Your task to perform on an android device: toggle notification dots Image 0: 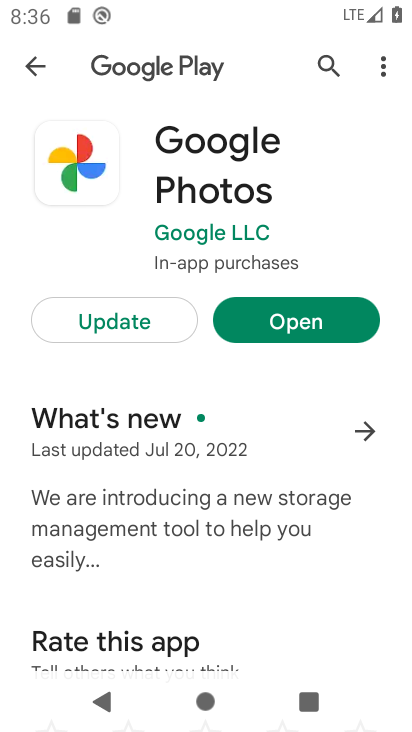
Step 0: press home button
Your task to perform on an android device: toggle notification dots Image 1: 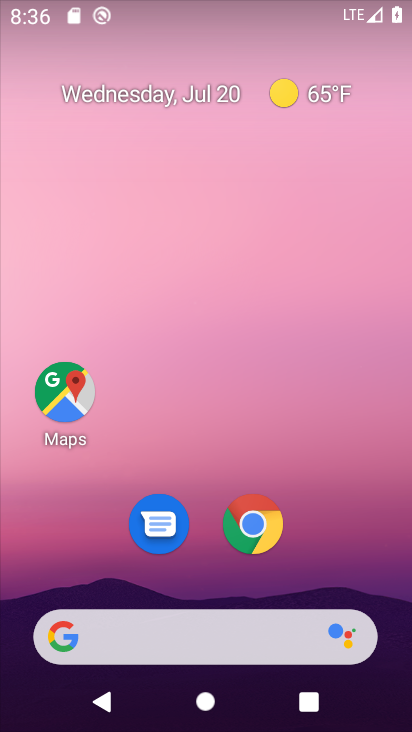
Step 1: drag from (343, 539) to (335, 62)
Your task to perform on an android device: toggle notification dots Image 2: 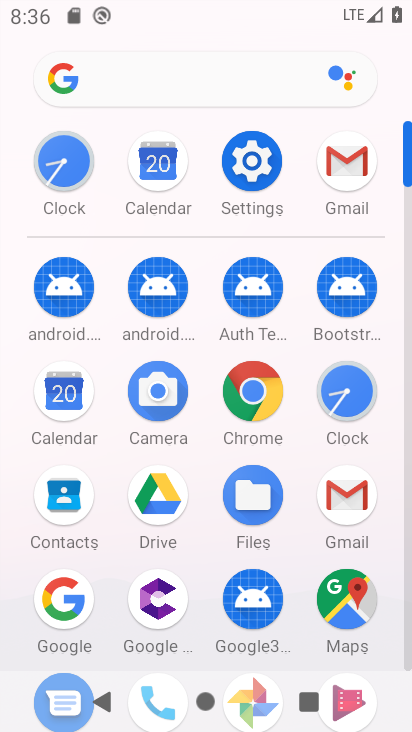
Step 2: click (262, 167)
Your task to perform on an android device: toggle notification dots Image 3: 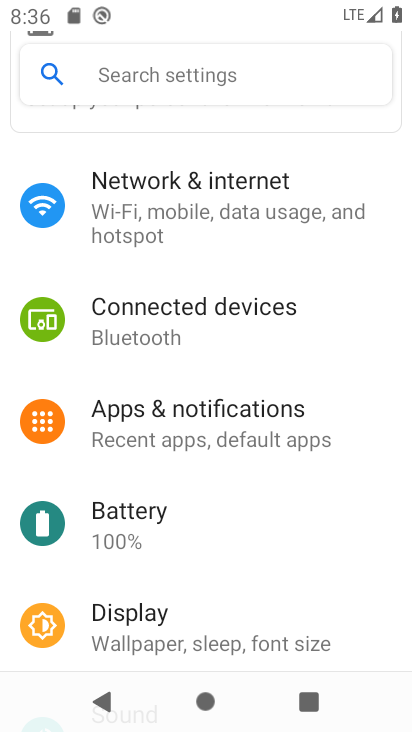
Step 3: click (253, 209)
Your task to perform on an android device: toggle notification dots Image 4: 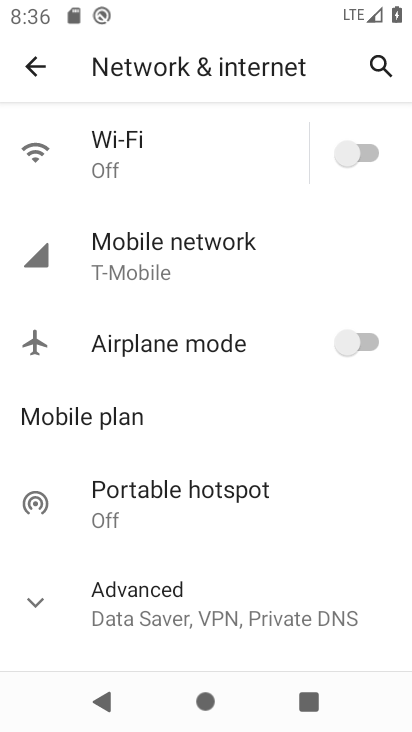
Step 4: click (46, 63)
Your task to perform on an android device: toggle notification dots Image 5: 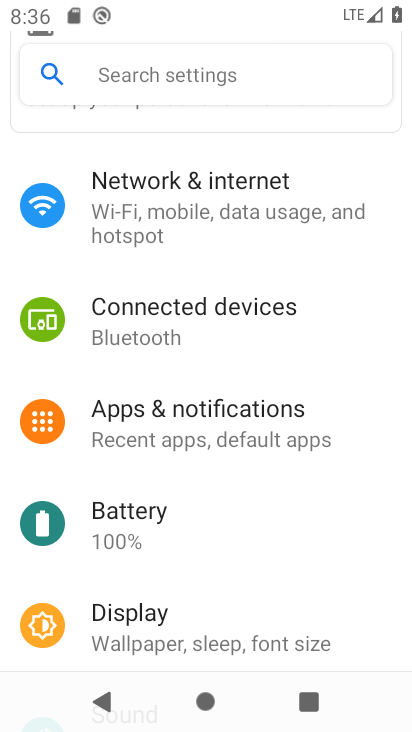
Step 5: click (191, 418)
Your task to perform on an android device: toggle notification dots Image 6: 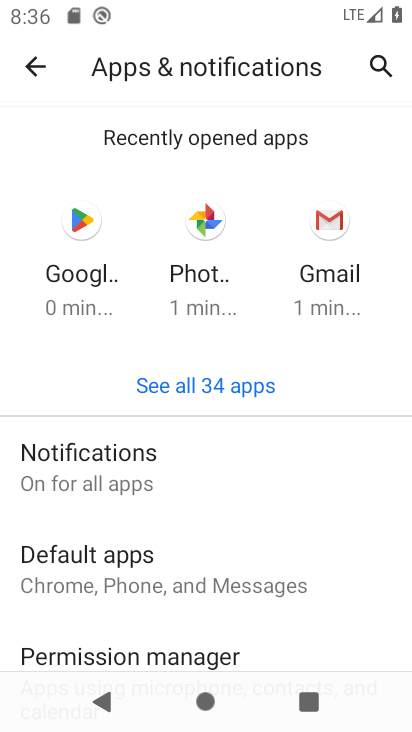
Step 6: click (143, 471)
Your task to perform on an android device: toggle notification dots Image 7: 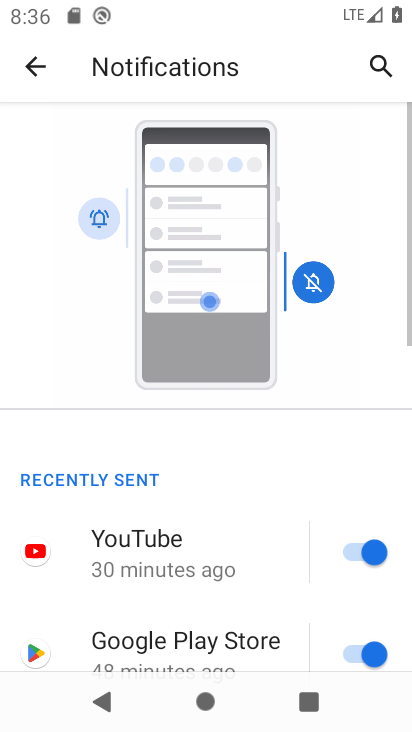
Step 7: drag from (186, 617) to (292, 149)
Your task to perform on an android device: toggle notification dots Image 8: 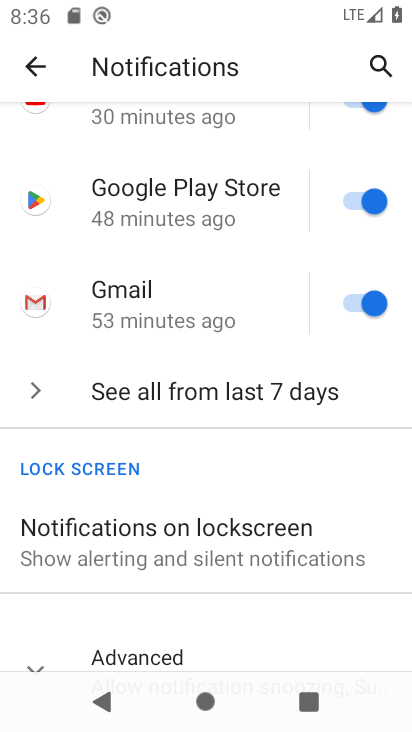
Step 8: drag from (94, 613) to (165, 374)
Your task to perform on an android device: toggle notification dots Image 9: 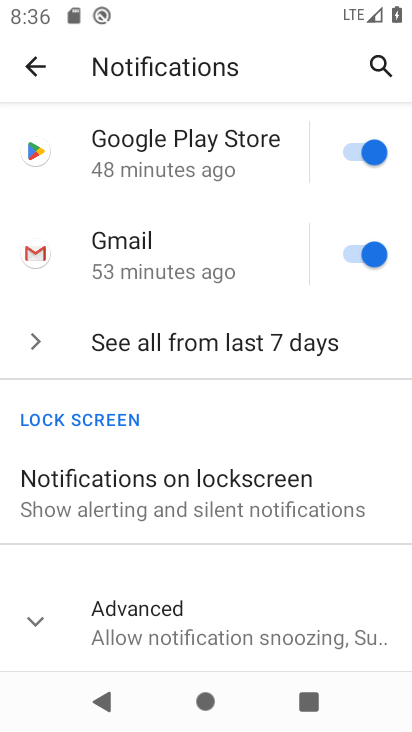
Step 9: click (35, 614)
Your task to perform on an android device: toggle notification dots Image 10: 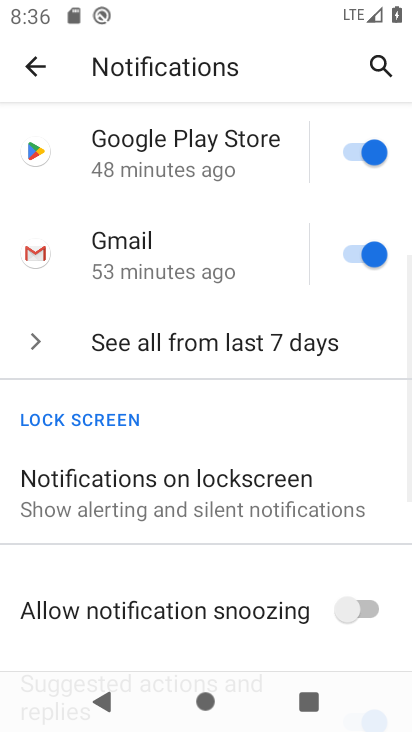
Step 10: drag from (177, 570) to (218, 292)
Your task to perform on an android device: toggle notification dots Image 11: 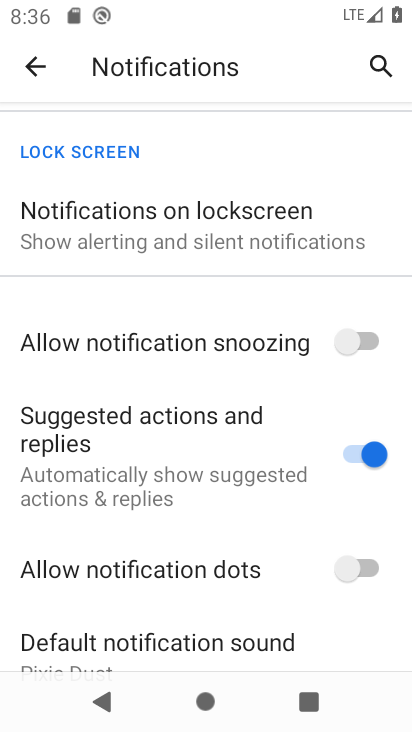
Step 11: click (356, 558)
Your task to perform on an android device: toggle notification dots Image 12: 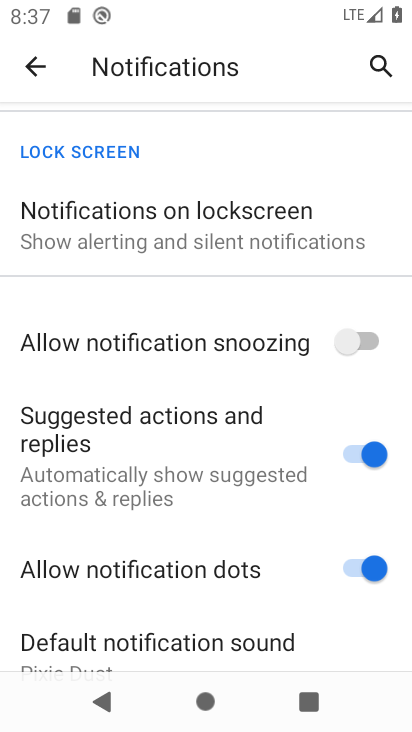
Step 12: task complete